Your task to perform on an android device: Open Google Chrome and open the bookmarks view Image 0: 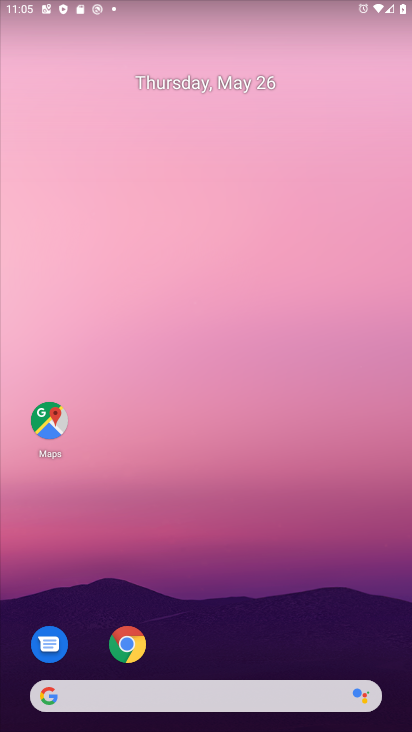
Step 0: click (126, 646)
Your task to perform on an android device: Open Google Chrome and open the bookmarks view Image 1: 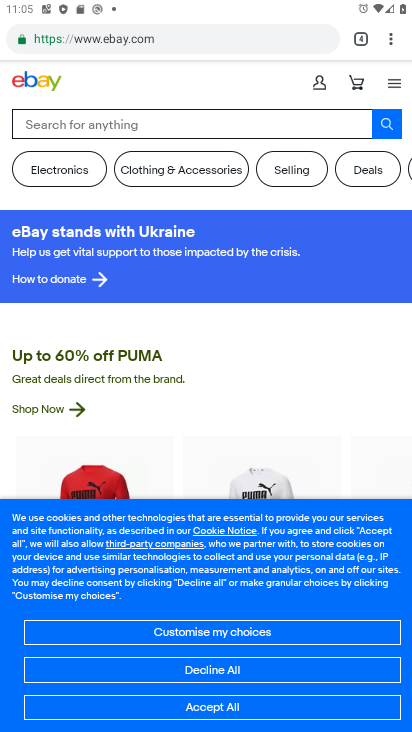
Step 1: drag from (391, 34) to (266, 159)
Your task to perform on an android device: Open Google Chrome and open the bookmarks view Image 2: 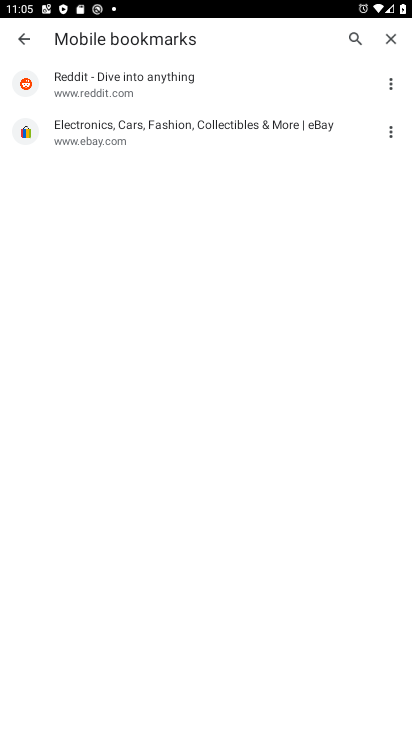
Step 2: click (151, 123)
Your task to perform on an android device: Open Google Chrome and open the bookmarks view Image 3: 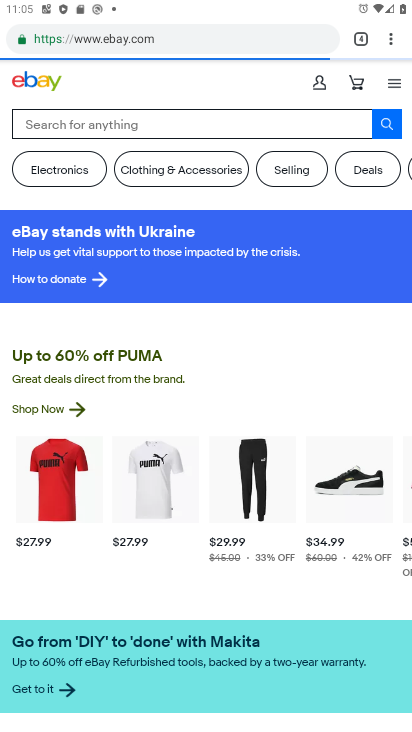
Step 3: task complete